Your task to perform on an android device: Go to sound settings Image 0: 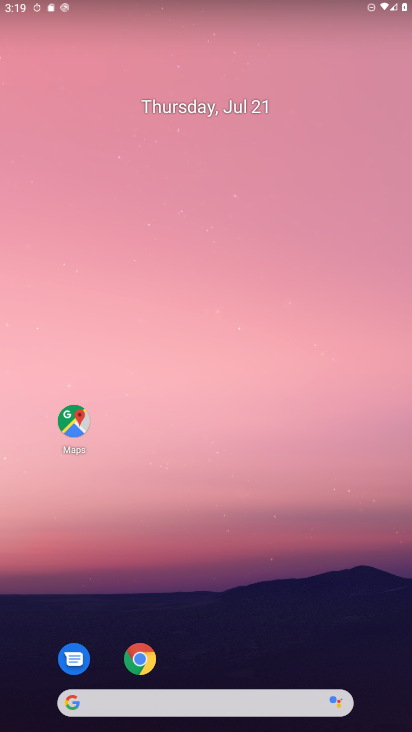
Step 0: drag from (15, 690) to (325, 101)
Your task to perform on an android device: Go to sound settings Image 1: 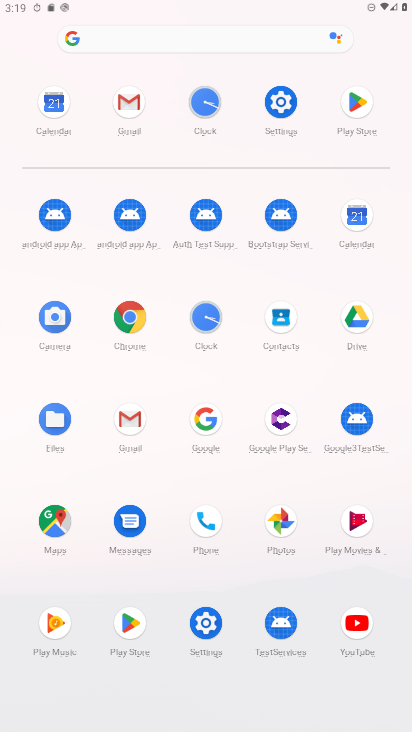
Step 1: click (291, 102)
Your task to perform on an android device: Go to sound settings Image 2: 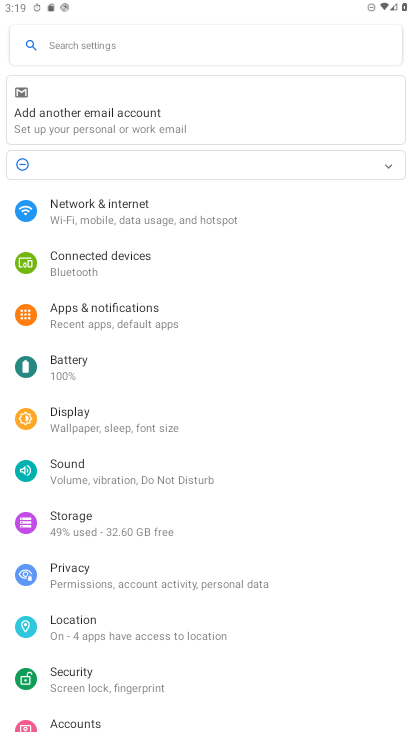
Step 2: click (118, 461)
Your task to perform on an android device: Go to sound settings Image 3: 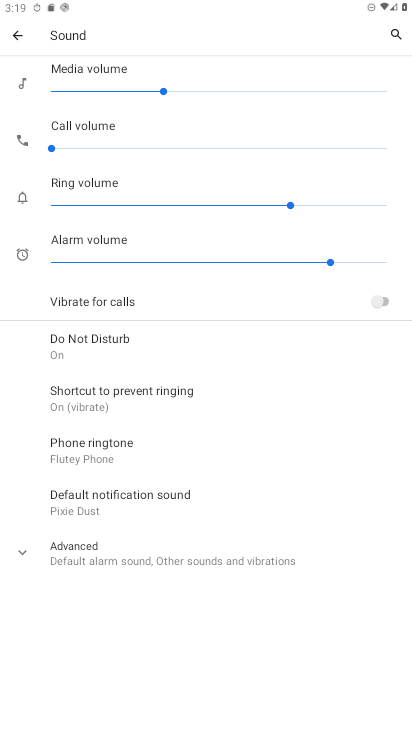
Step 3: task complete